Your task to perform on an android device: Open calendar and show me the third week of next month Image 0: 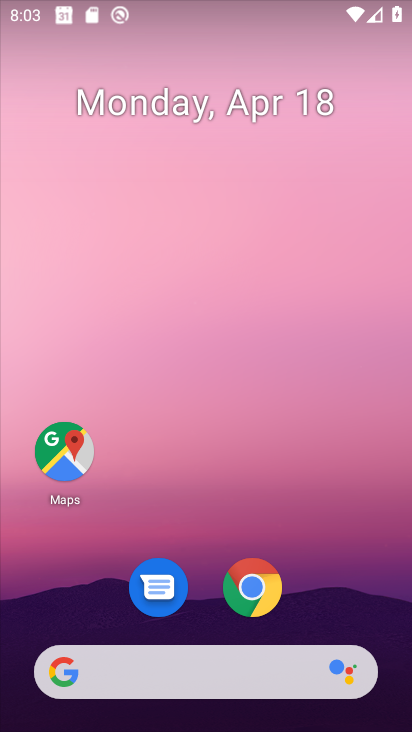
Step 0: click (109, 108)
Your task to perform on an android device: Open calendar and show me the third week of next month Image 1: 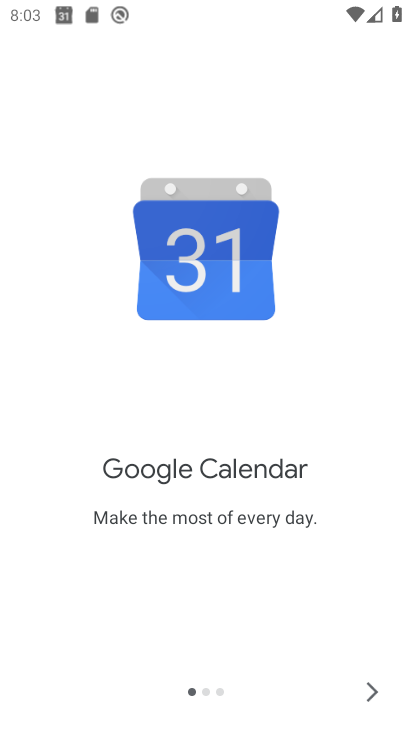
Step 1: click (373, 707)
Your task to perform on an android device: Open calendar and show me the third week of next month Image 2: 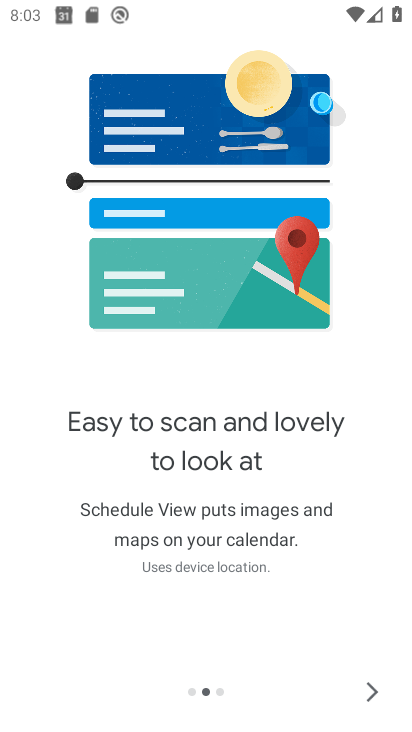
Step 2: click (373, 707)
Your task to perform on an android device: Open calendar and show me the third week of next month Image 3: 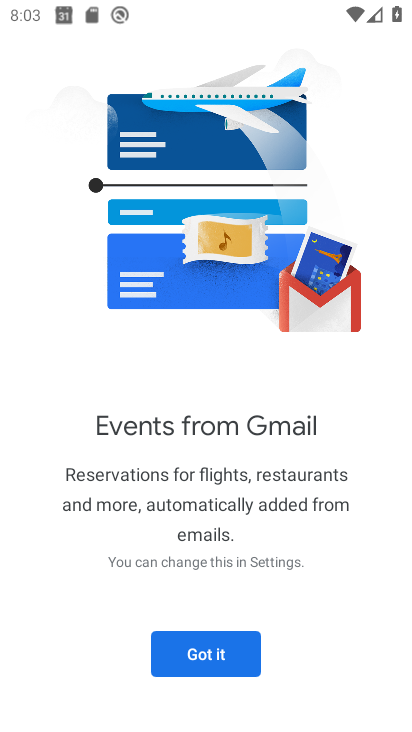
Step 3: click (156, 644)
Your task to perform on an android device: Open calendar and show me the third week of next month Image 4: 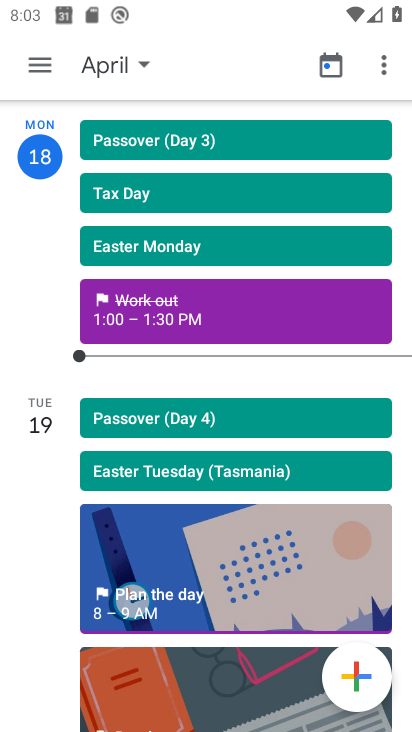
Step 4: click (135, 71)
Your task to perform on an android device: Open calendar and show me the third week of next month Image 5: 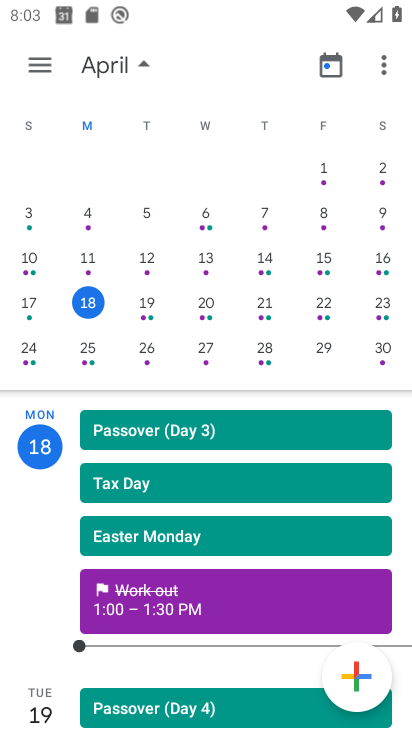
Step 5: drag from (125, 249) to (1, 231)
Your task to perform on an android device: Open calendar and show me the third week of next month Image 6: 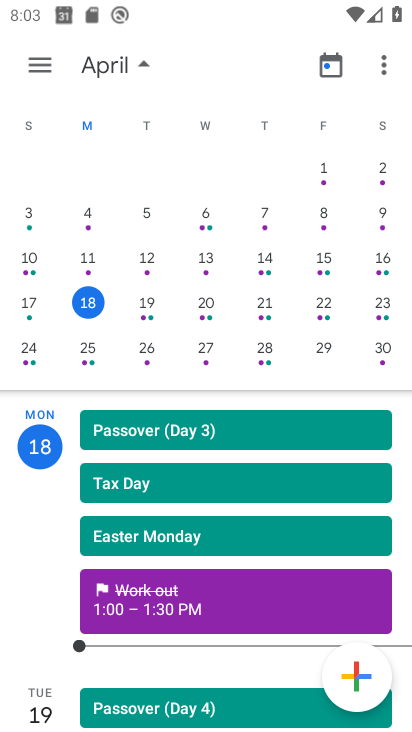
Step 6: drag from (381, 323) to (23, 295)
Your task to perform on an android device: Open calendar and show me the third week of next month Image 7: 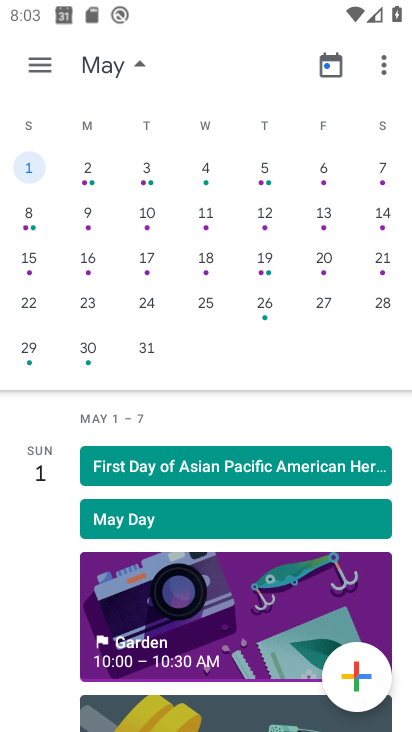
Step 7: click (151, 263)
Your task to perform on an android device: Open calendar and show me the third week of next month Image 8: 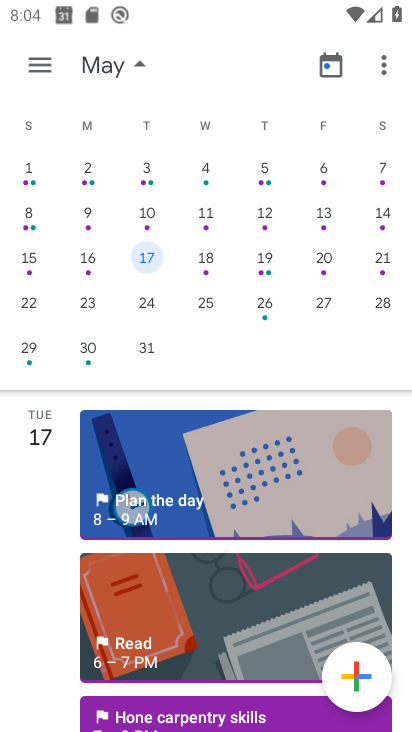
Step 8: task complete